Your task to perform on an android device: clear all cookies in the chrome app Image 0: 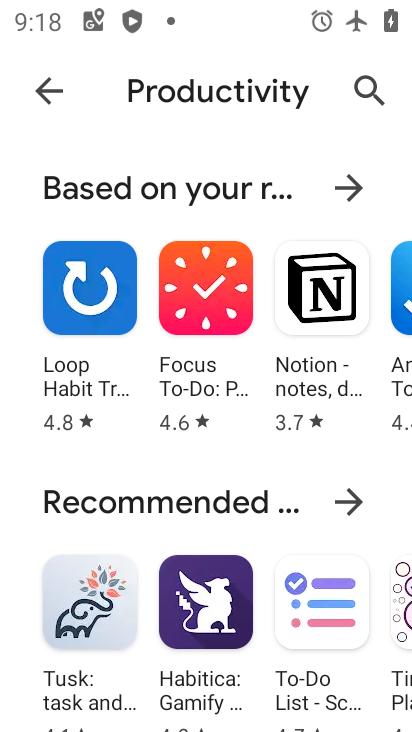
Step 0: press home button
Your task to perform on an android device: clear all cookies in the chrome app Image 1: 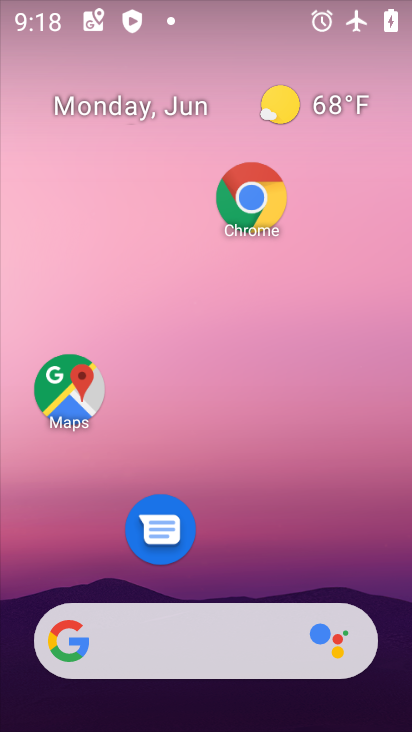
Step 1: click (249, 228)
Your task to perform on an android device: clear all cookies in the chrome app Image 2: 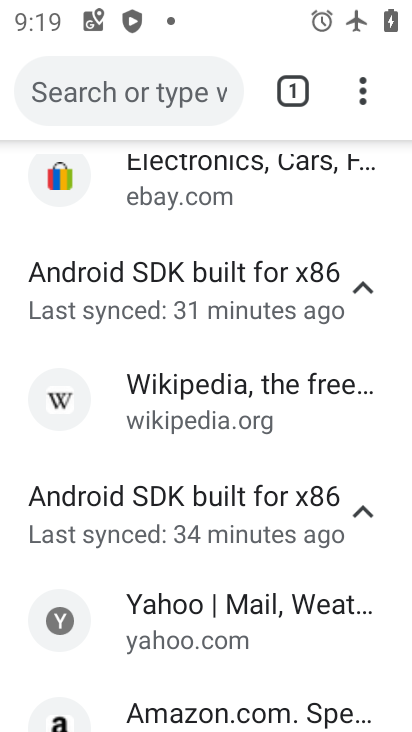
Step 2: click (357, 89)
Your task to perform on an android device: clear all cookies in the chrome app Image 3: 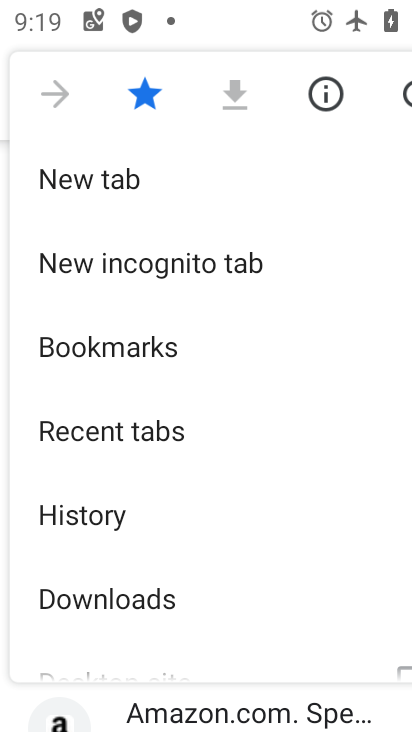
Step 3: drag from (243, 567) to (227, 277)
Your task to perform on an android device: clear all cookies in the chrome app Image 4: 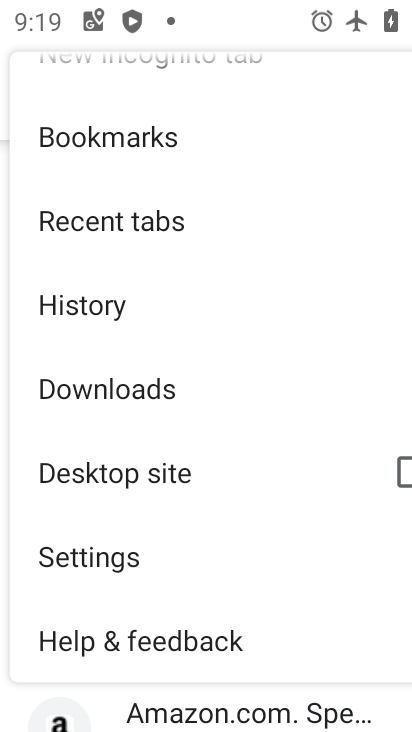
Step 4: drag from (202, 559) to (212, 310)
Your task to perform on an android device: clear all cookies in the chrome app Image 5: 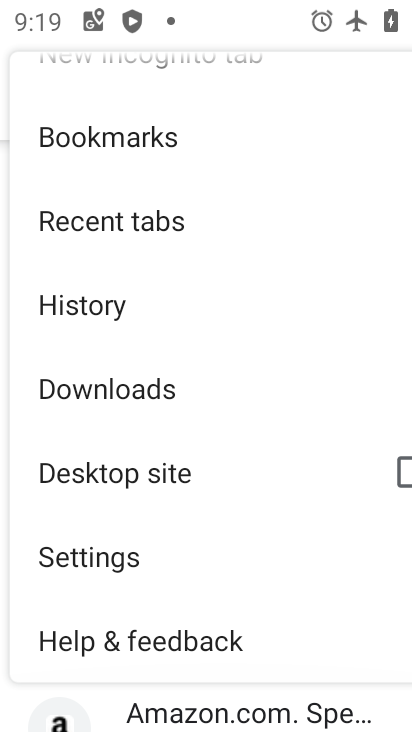
Step 5: drag from (208, 574) to (215, 334)
Your task to perform on an android device: clear all cookies in the chrome app Image 6: 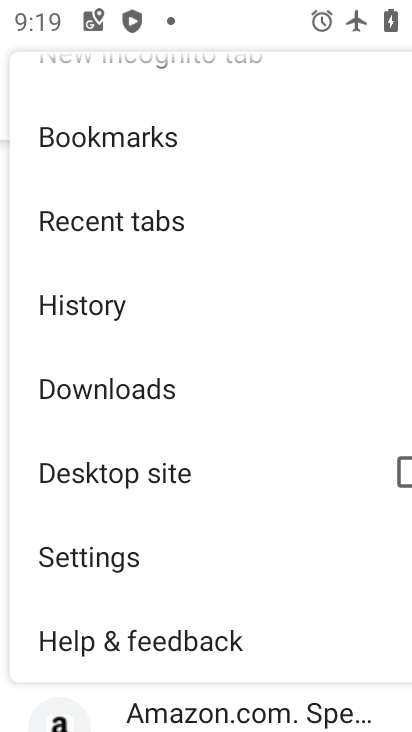
Step 6: click (146, 293)
Your task to perform on an android device: clear all cookies in the chrome app Image 7: 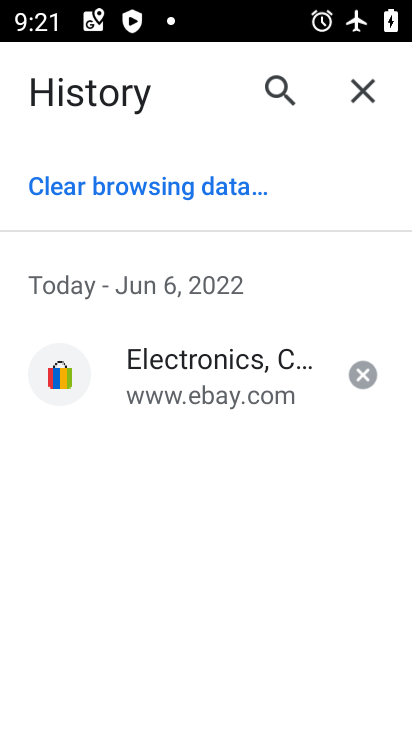
Step 7: click (135, 186)
Your task to perform on an android device: clear all cookies in the chrome app Image 8: 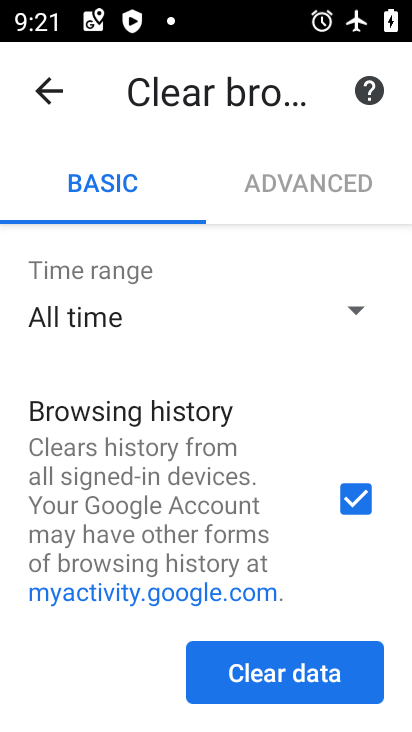
Step 8: task complete